Your task to perform on an android device: turn off sleep mode Image 0: 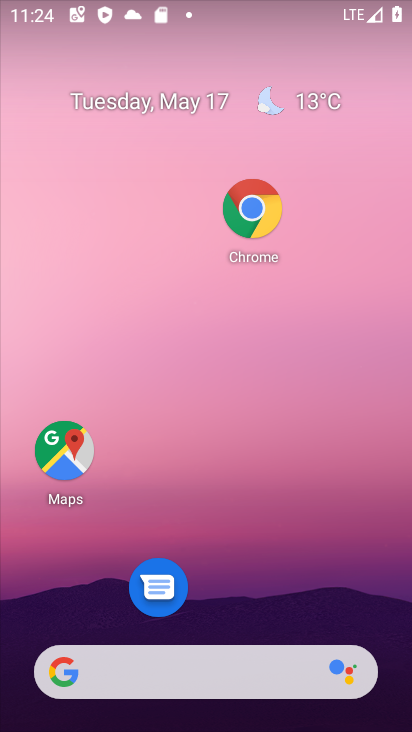
Step 0: drag from (240, 589) to (238, 87)
Your task to perform on an android device: turn off sleep mode Image 1: 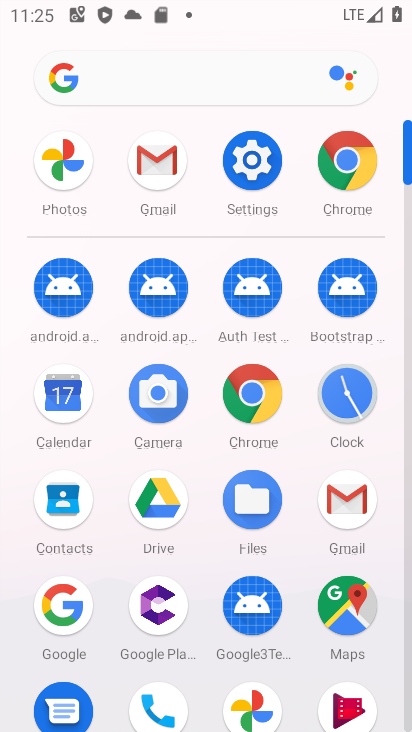
Step 1: click (252, 168)
Your task to perform on an android device: turn off sleep mode Image 2: 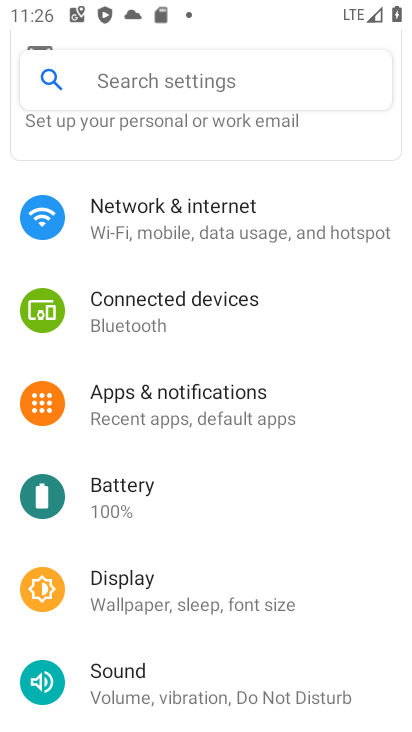
Step 2: click (154, 597)
Your task to perform on an android device: turn off sleep mode Image 3: 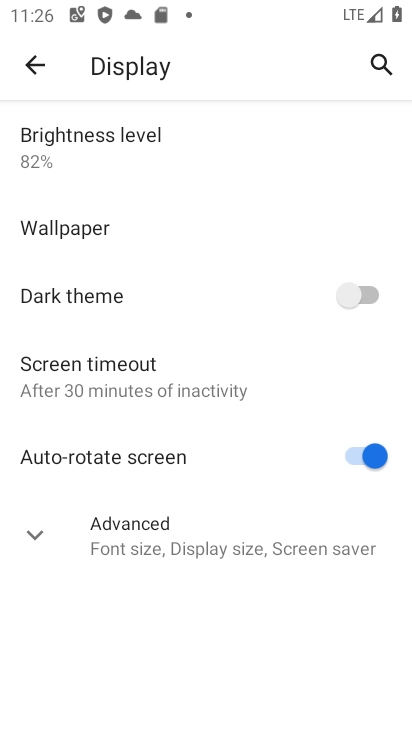
Step 3: click (238, 554)
Your task to perform on an android device: turn off sleep mode Image 4: 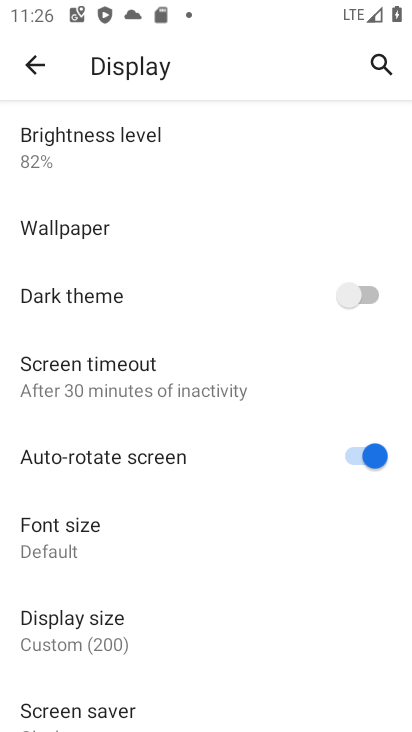
Step 4: task complete